Your task to perform on an android device: add a label to a message in the gmail app Image 0: 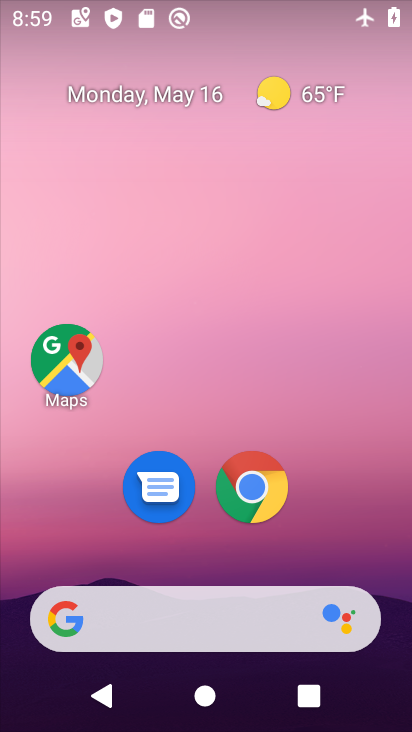
Step 0: drag from (364, 539) to (358, 157)
Your task to perform on an android device: add a label to a message in the gmail app Image 1: 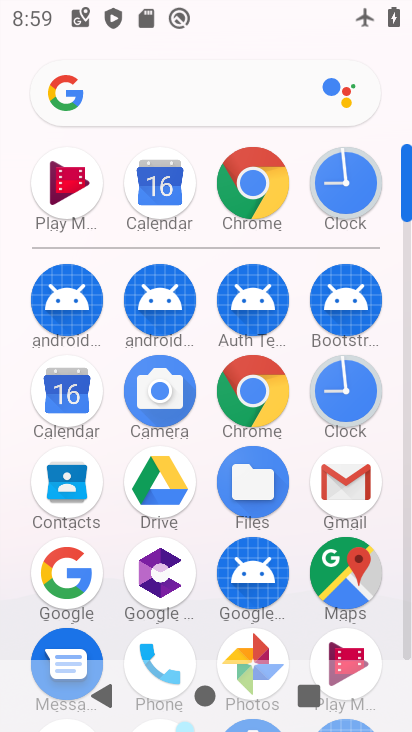
Step 1: click (348, 477)
Your task to perform on an android device: add a label to a message in the gmail app Image 2: 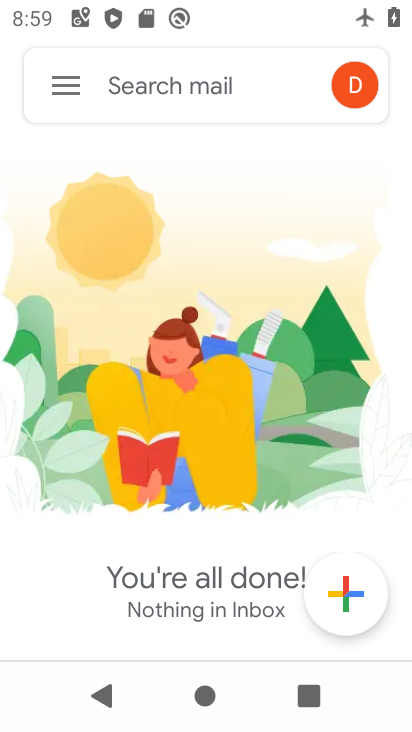
Step 2: click (75, 88)
Your task to perform on an android device: add a label to a message in the gmail app Image 3: 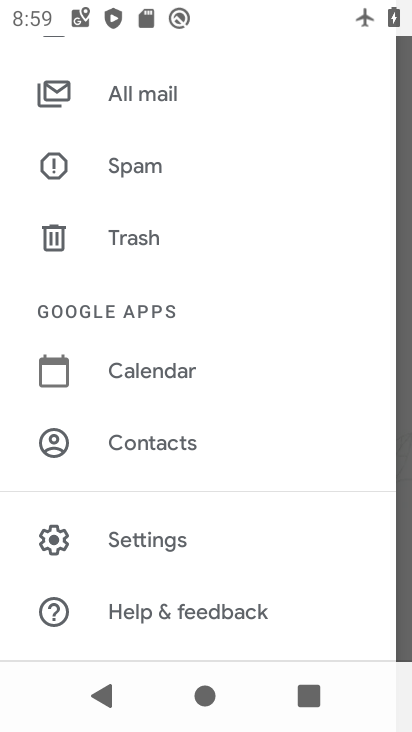
Step 3: drag from (307, 286) to (305, 454)
Your task to perform on an android device: add a label to a message in the gmail app Image 4: 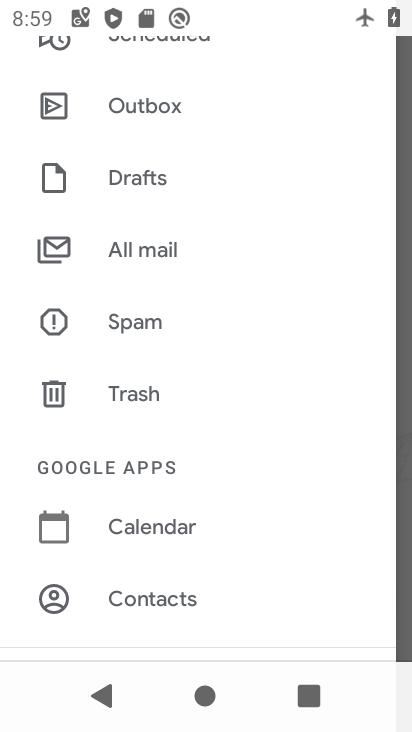
Step 4: drag from (303, 255) to (295, 419)
Your task to perform on an android device: add a label to a message in the gmail app Image 5: 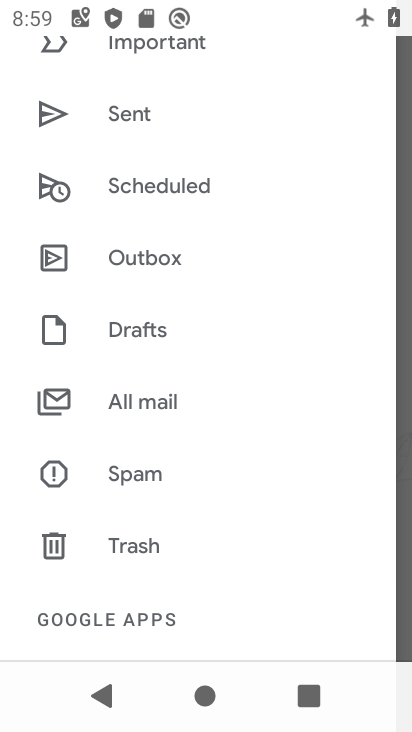
Step 5: drag from (305, 303) to (284, 504)
Your task to perform on an android device: add a label to a message in the gmail app Image 6: 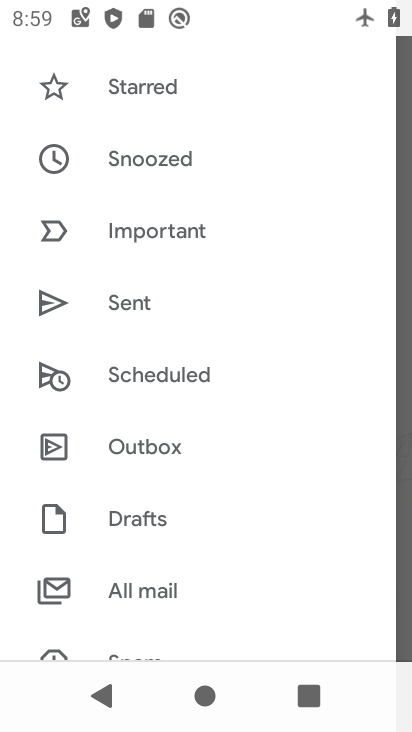
Step 6: drag from (286, 277) to (287, 480)
Your task to perform on an android device: add a label to a message in the gmail app Image 7: 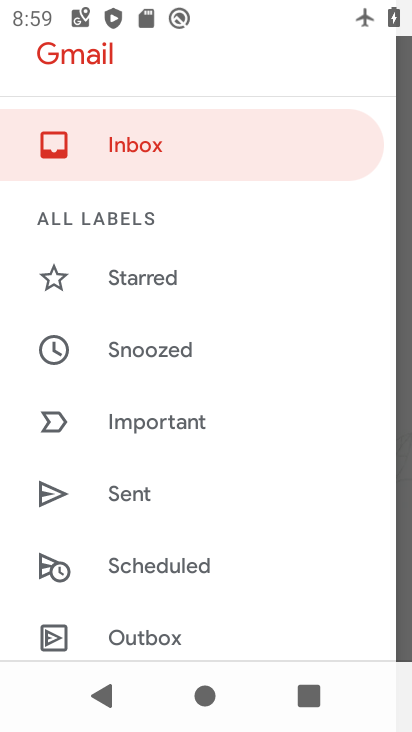
Step 7: drag from (285, 283) to (268, 495)
Your task to perform on an android device: add a label to a message in the gmail app Image 8: 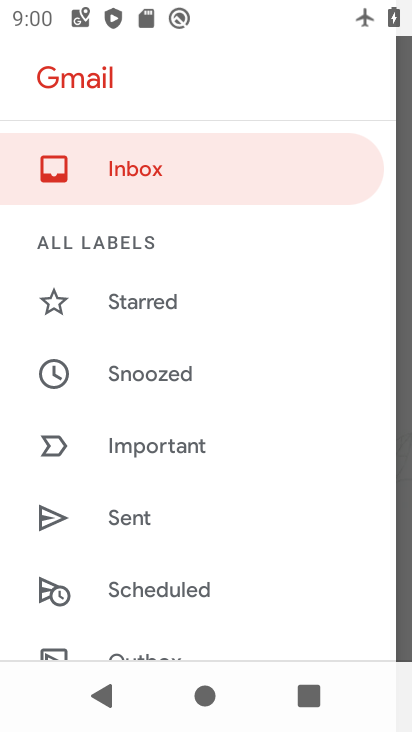
Step 8: click (158, 168)
Your task to perform on an android device: add a label to a message in the gmail app Image 9: 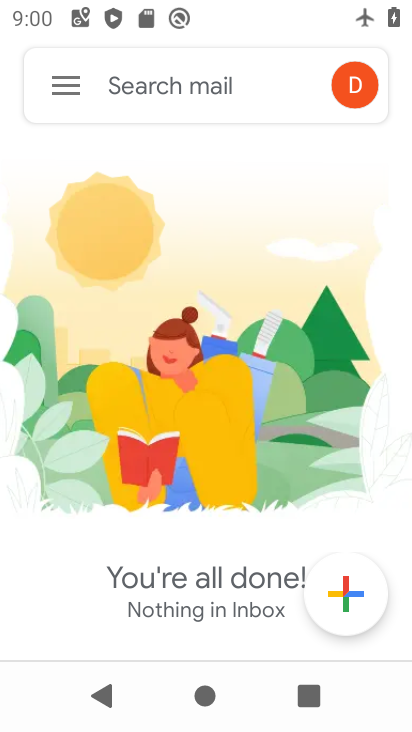
Step 9: task complete